Your task to perform on an android device: toggle data saver in the chrome app Image 0: 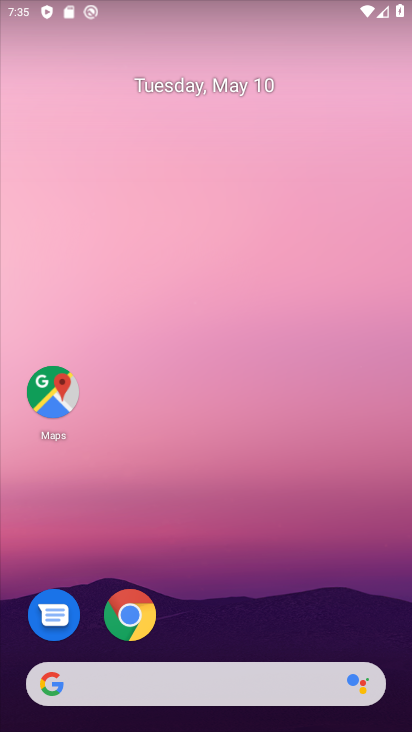
Step 0: click (210, 96)
Your task to perform on an android device: toggle data saver in the chrome app Image 1: 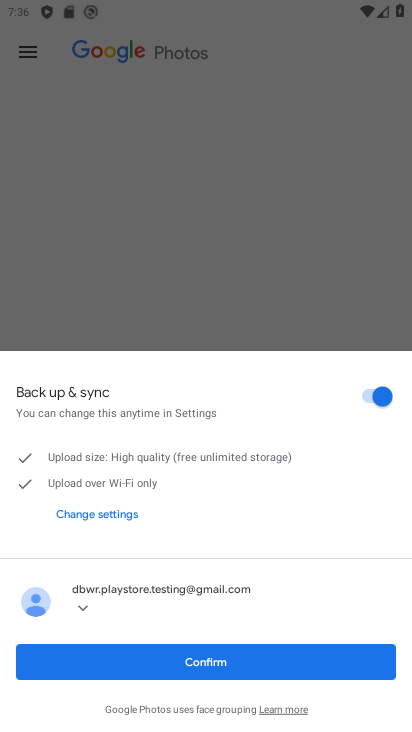
Step 1: click (214, 680)
Your task to perform on an android device: toggle data saver in the chrome app Image 2: 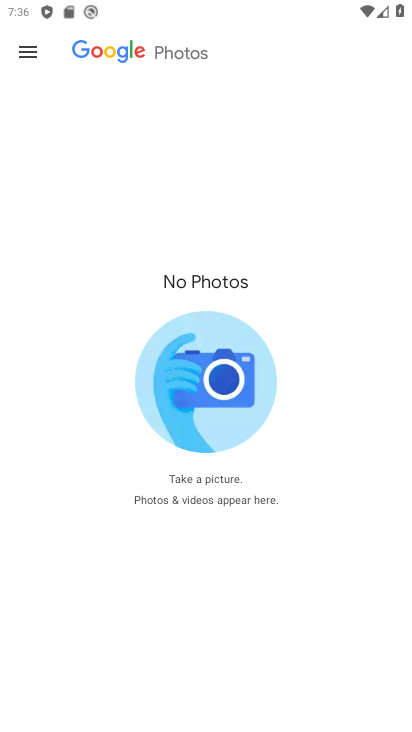
Step 2: press home button
Your task to perform on an android device: toggle data saver in the chrome app Image 3: 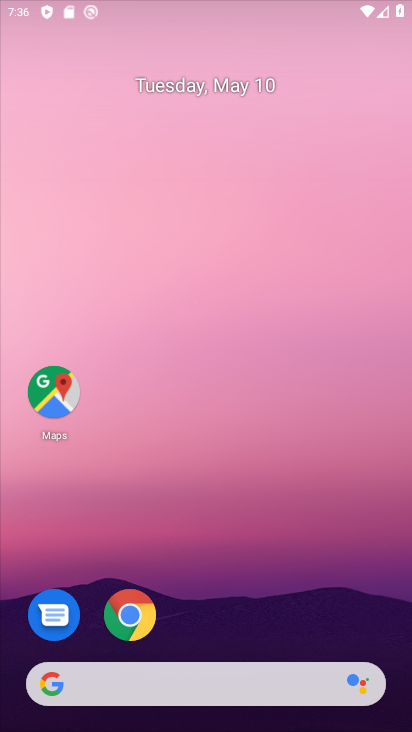
Step 3: drag from (242, 602) to (289, 284)
Your task to perform on an android device: toggle data saver in the chrome app Image 4: 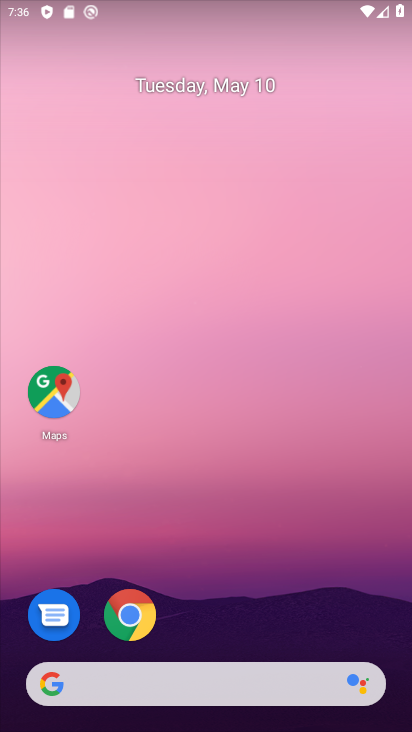
Step 4: drag from (191, 609) to (245, 142)
Your task to perform on an android device: toggle data saver in the chrome app Image 5: 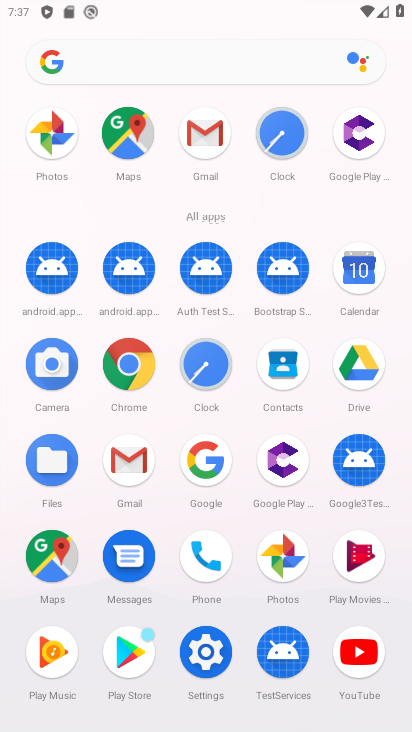
Step 5: click (128, 368)
Your task to perform on an android device: toggle data saver in the chrome app Image 6: 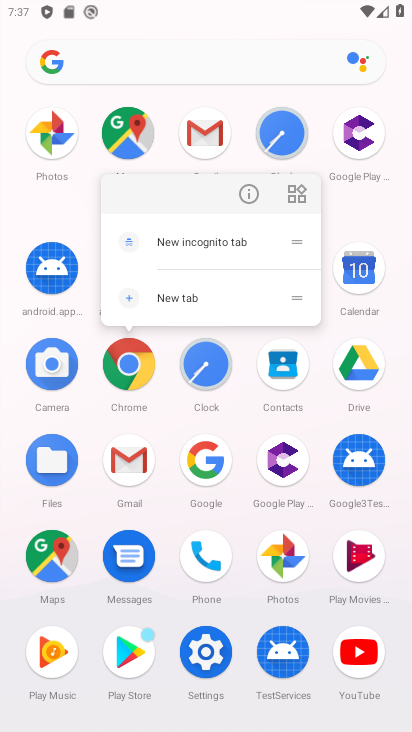
Step 6: click (241, 190)
Your task to perform on an android device: toggle data saver in the chrome app Image 7: 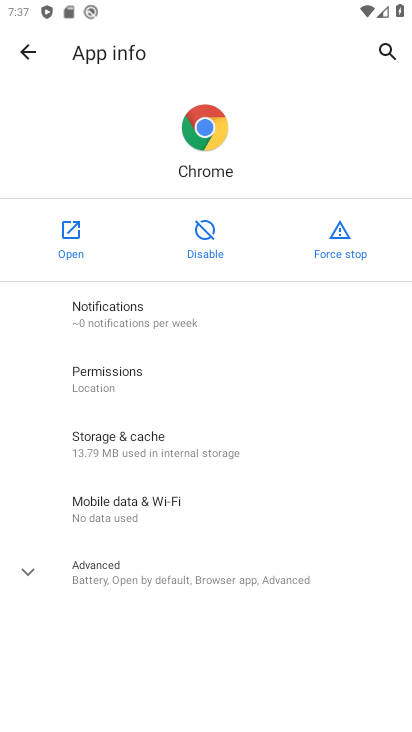
Step 7: click (70, 255)
Your task to perform on an android device: toggle data saver in the chrome app Image 8: 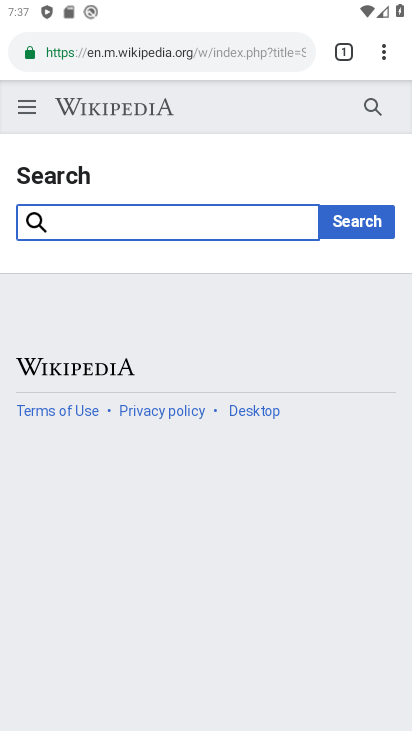
Step 8: drag from (381, 65) to (239, 625)
Your task to perform on an android device: toggle data saver in the chrome app Image 9: 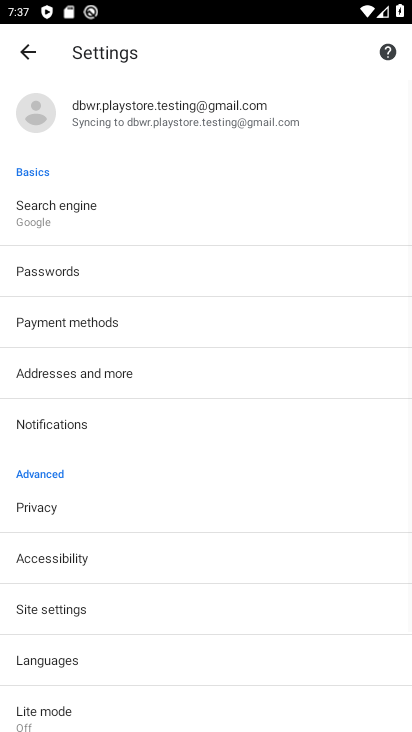
Step 9: drag from (115, 606) to (163, 101)
Your task to perform on an android device: toggle data saver in the chrome app Image 10: 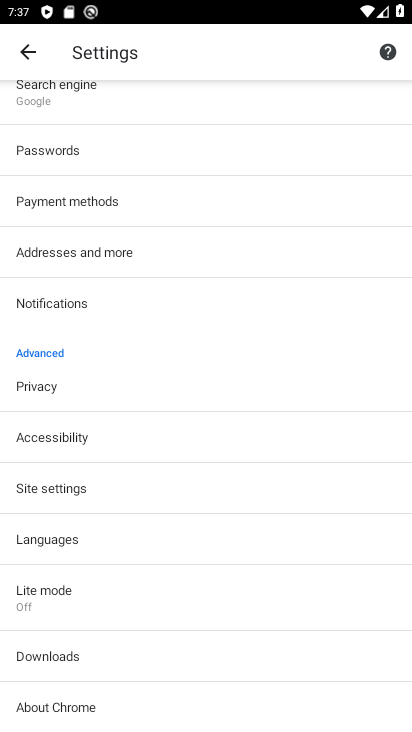
Step 10: click (73, 601)
Your task to perform on an android device: toggle data saver in the chrome app Image 11: 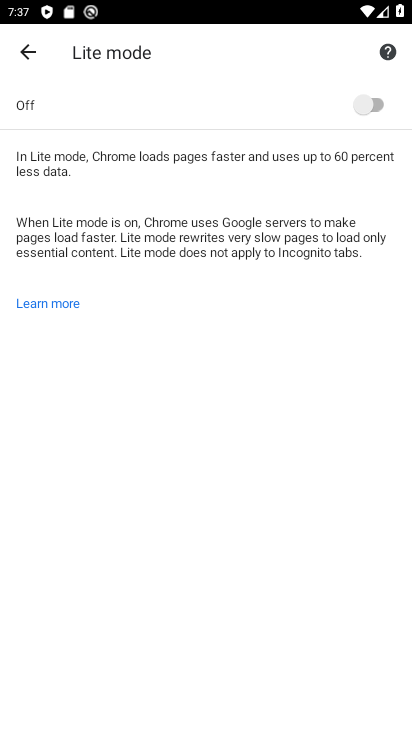
Step 11: click (373, 118)
Your task to perform on an android device: toggle data saver in the chrome app Image 12: 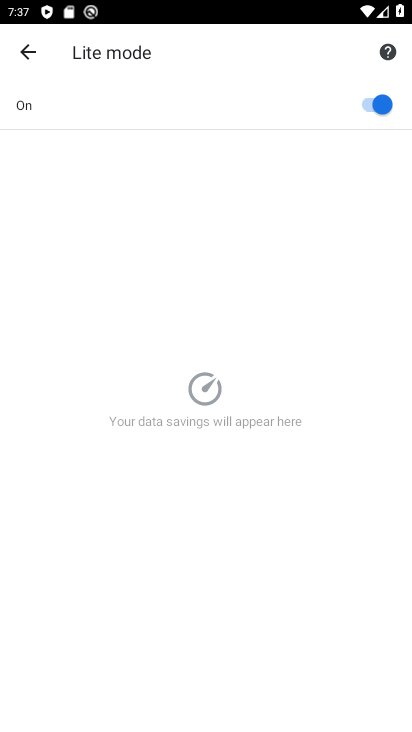
Step 12: task complete